Your task to perform on an android device: What's on my calendar today? Image 0: 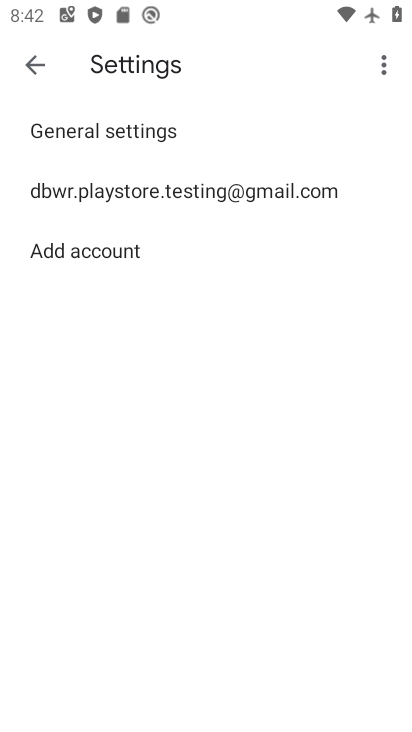
Step 0: press home button
Your task to perform on an android device: What's on my calendar today? Image 1: 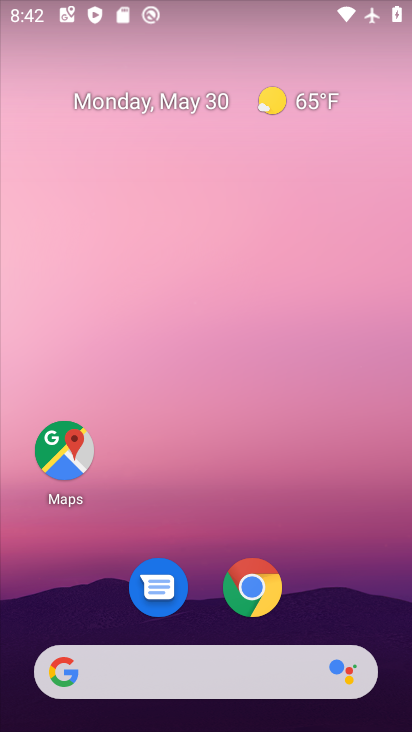
Step 1: drag from (198, 681) to (329, 237)
Your task to perform on an android device: What's on my calendar today? Image 2: 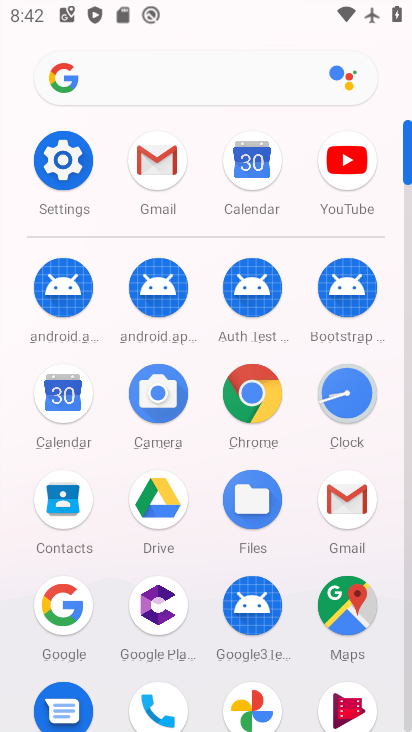
Step 2: click (257, 173)
Your task to perform on an android device: What's on my calendar today? Image 3: 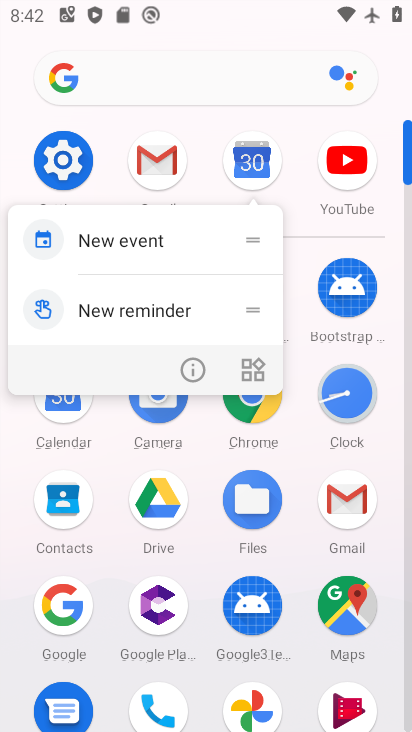
Step 3: click (257, 172)
Your task to perform on an android device: What's on my calendar today? Image 4: 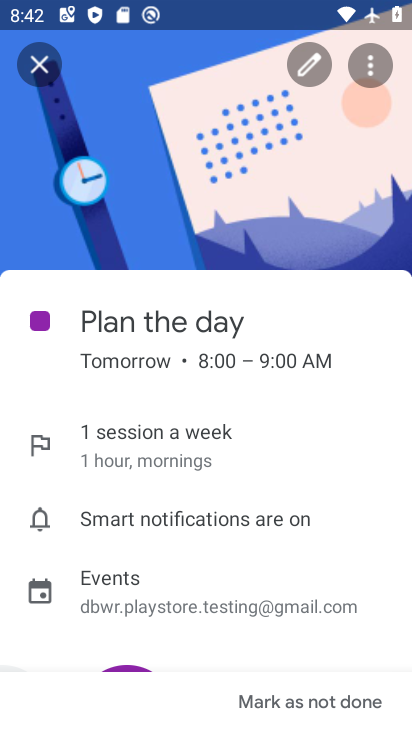
Step 4: click (37, 65)
Your task to perform on an android device: What's on my calendar today? Image 5: 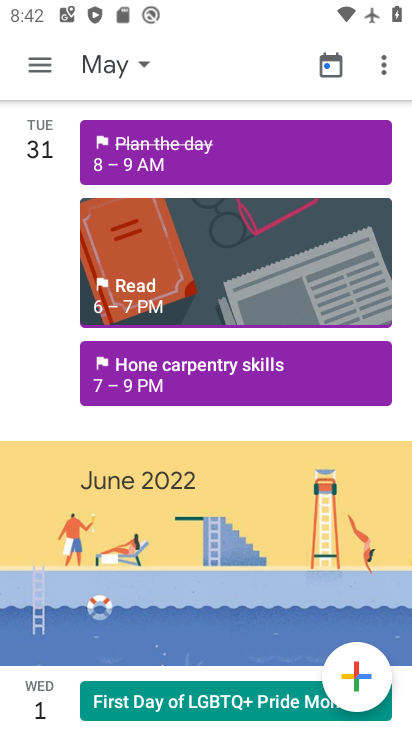
Step 5: click (94, 69)
Your task to perform on an android device: What's on my calendar today? Image 6: 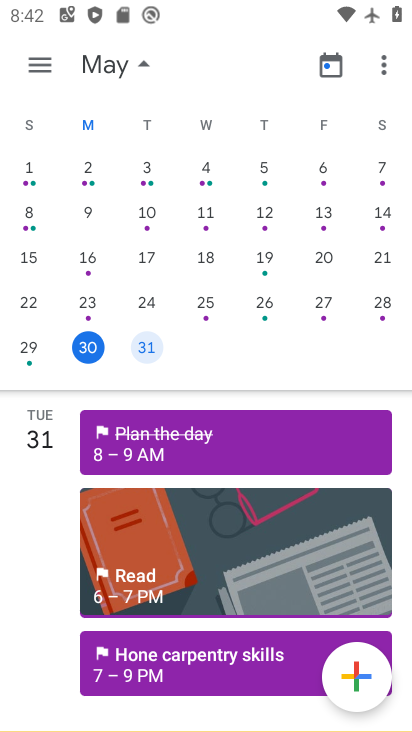
Step 6: click (90, 352)
Your task to perform on an android device: What's on my calendar today? Image 7: 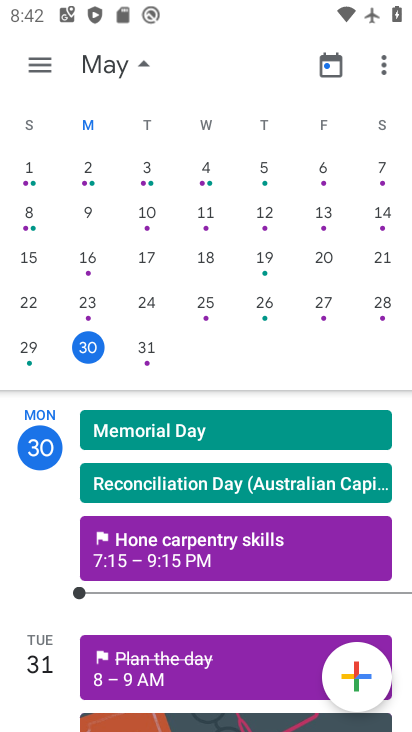
Step 7: click (47, 65)
Your task to perform on an android device: What's on my calendar today? Image 8: 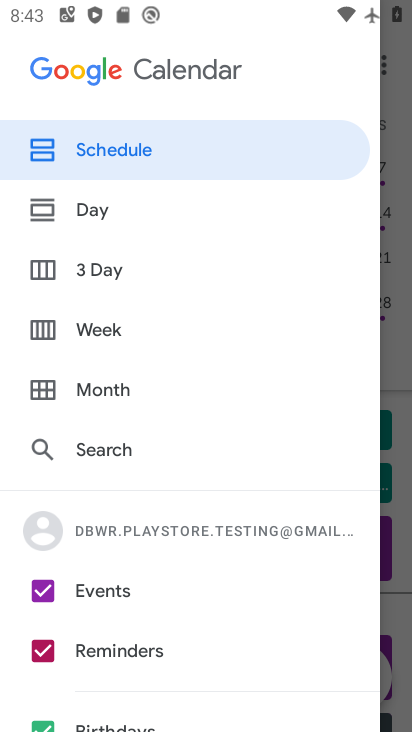
Step 8: click (103, 153)
Your task to perform on an android device: What's on my calendar today? Image 9: 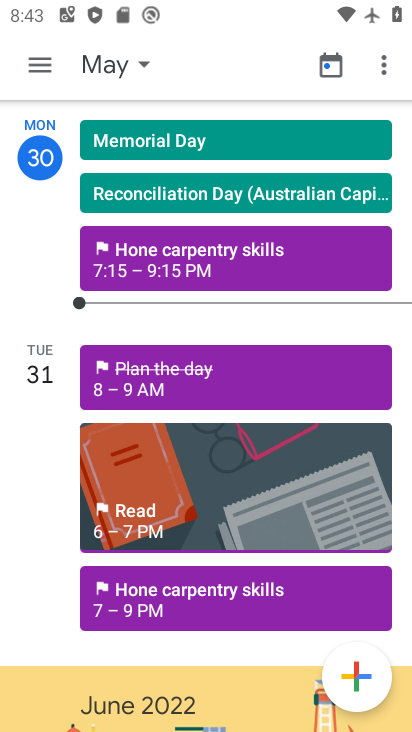
Step 9: task complete